Your task to perform on an android device: Open Yahoo.com Image 0: 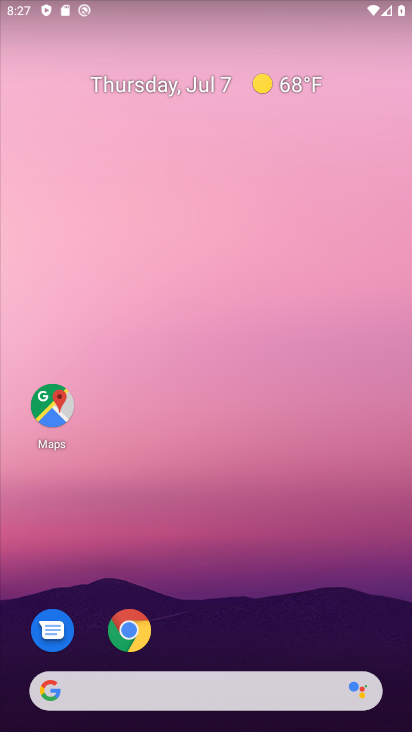
Step 0: click (130, 628)
Your task to perform on an android device: Open Yahoo.com Image 1: 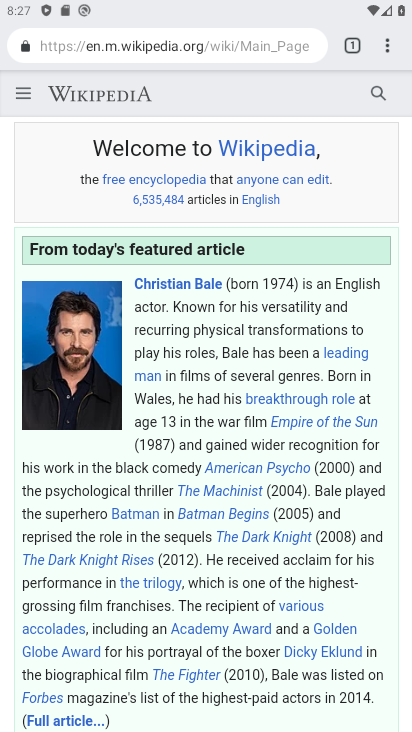
Step 1: click (278, 46)
Your task to perform on an android device: Open Yahoo.com Image 2: 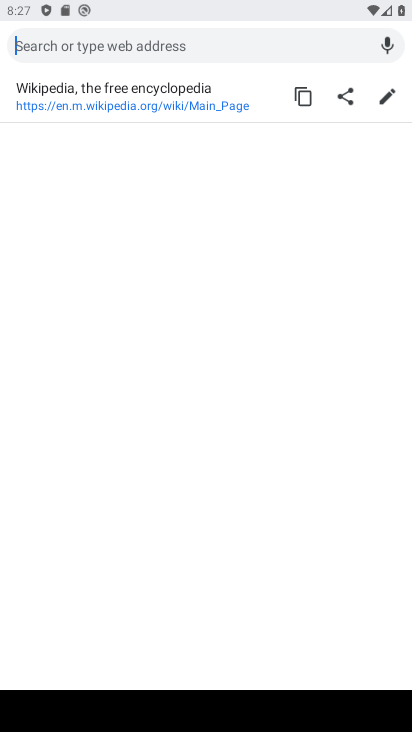
Step 2: type "Yahoo.com"
Your task to perform on an android device: Open Yahoo.com Image 3: 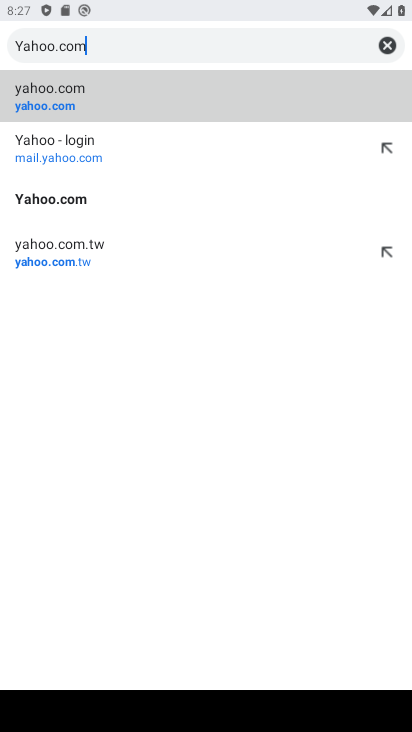
Step 3: click (70, 202)
Your task to perform on an android device: Open Yahoo.com Image 4: 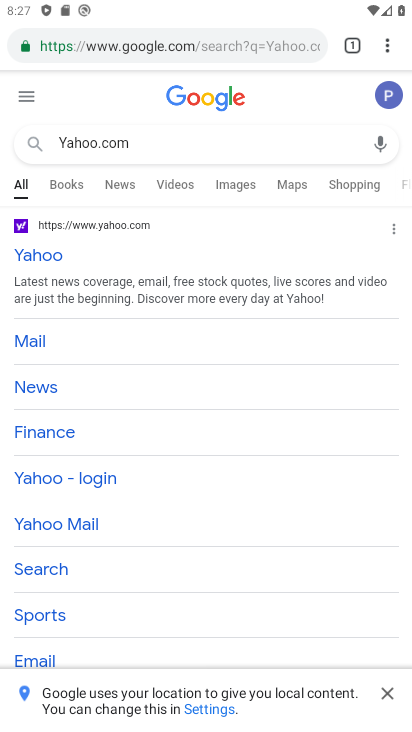
Step 4: click (49, 254)
Your task to perform on an android device: Open Yahoo.com Image 5: 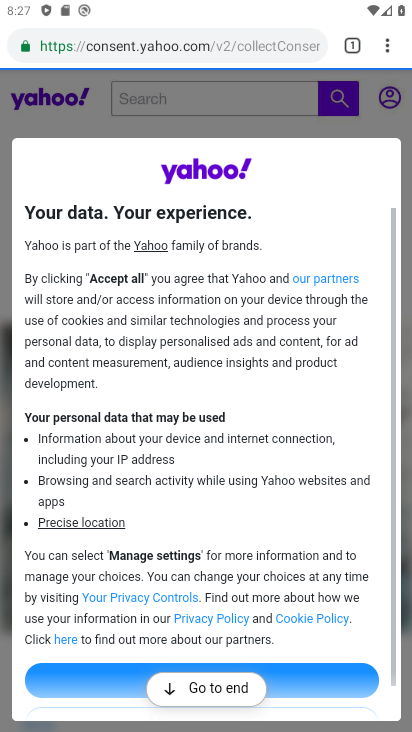
Step 5: click (205, 678)
Your task to perform on an android device: Open Yahoo.com Image 6: 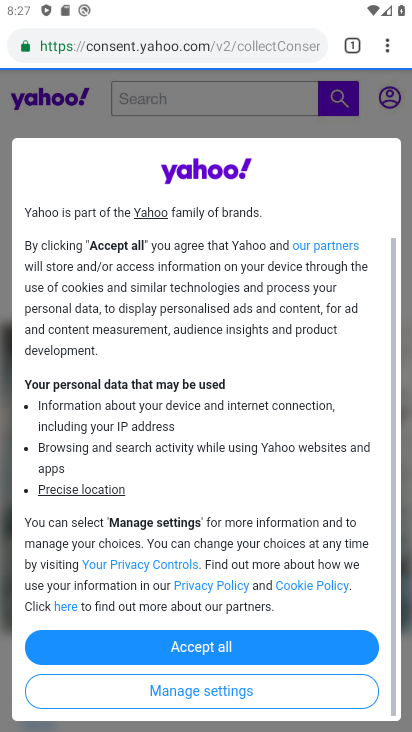
Step 6: click (218, 640)
Your task to perform on an android device: Open Yahoo.com Image 7: 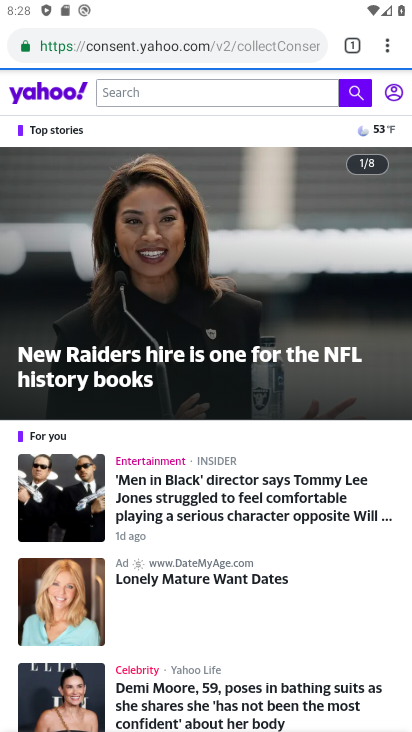
Step 7: task complete